Your task to perform on an android device: turn on the 12-hour format for clock Image 0: 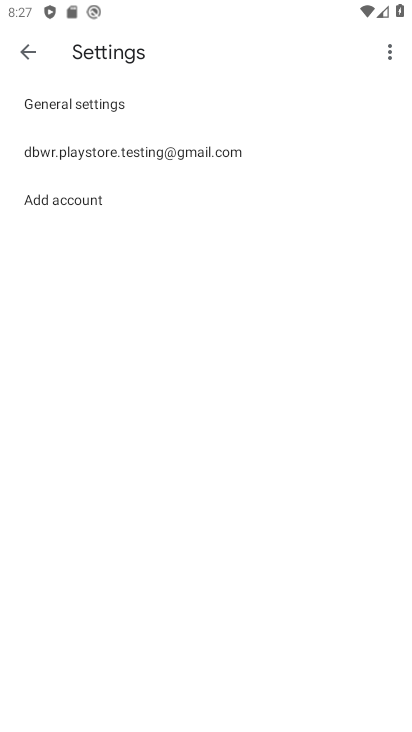
Step 0: press back button
Your task to perform on an android device: turn on the 12-hour format for clock Image 1: 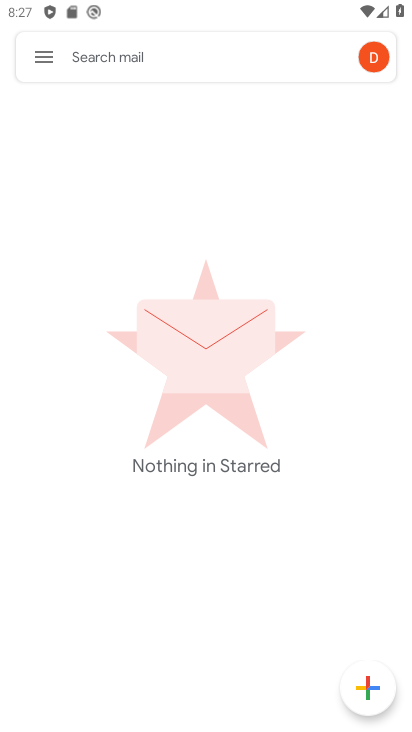
Step 1: press back button
Your task to perform on an android device: turn on the 12-hour format for clock Image 2: 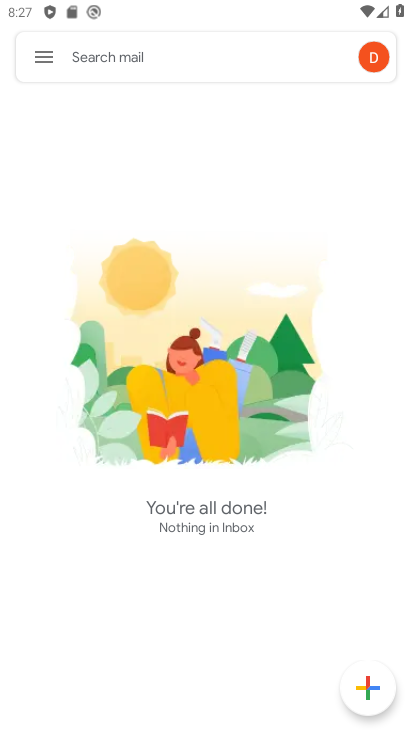
Step 2: press home button
Your task to perform on an android device: turn on the 12-hour format for clock Image 3: 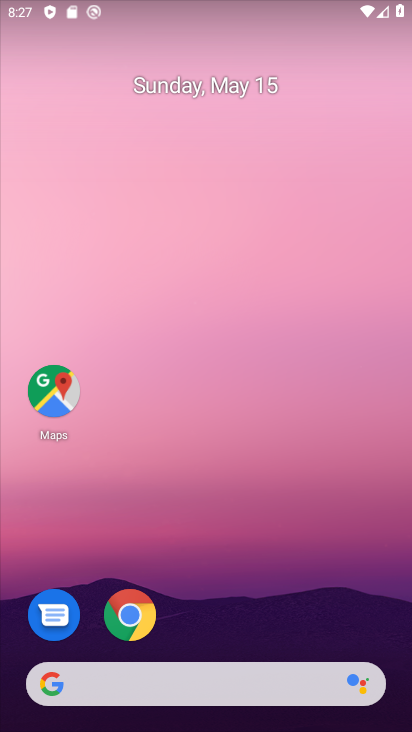
Step 3: drag from (270, 286) to (293, 3)
Your task to perform on an android device: turn on the 12-hour format for clock Image 4: 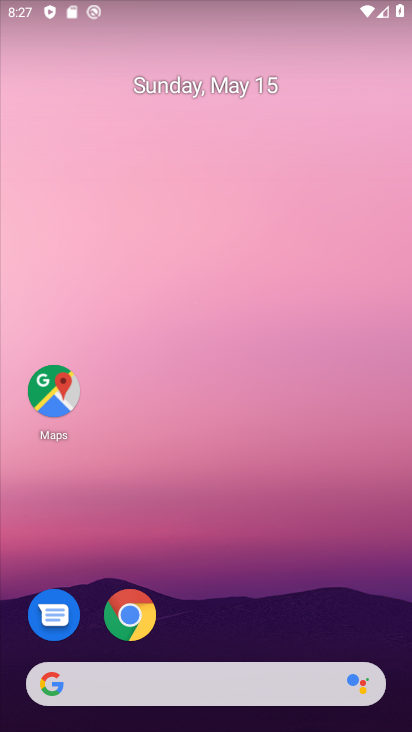
Step 4: drag from (304, 472) to (260, 9)
Your task to perform on an android device: turn on the 12-hour format for clock Image 5: 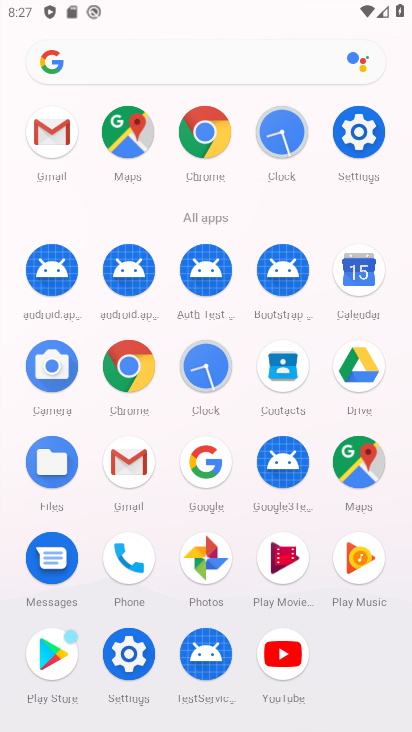
Step 5: drag from (6, 589) to (19, 356)
Your task to perform on an android device: turn on the 12-hour format for clock Image 6: 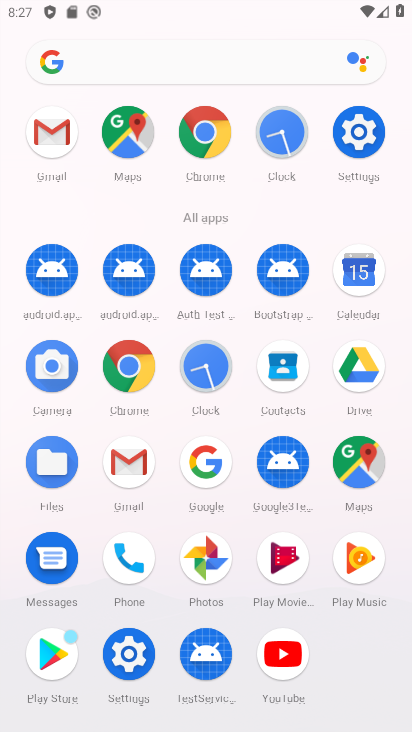
Step 6: click (204, 364)
Your task to perform on an android device: turn on the 12-hour format for clock Image 7: 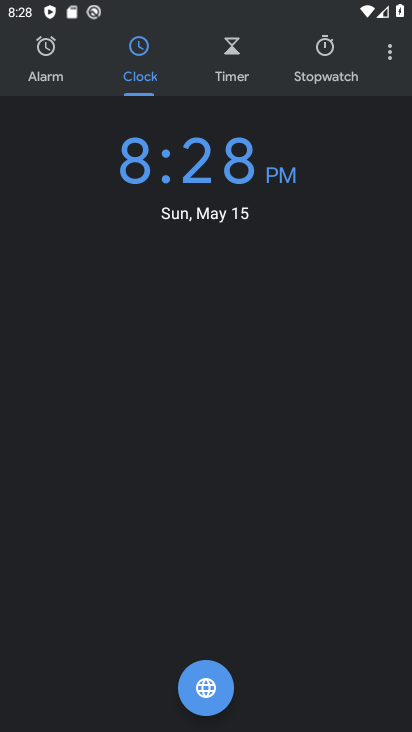
Step 7: drag from (393, 52) to (357, 108)
Your task to perform on an android device: turn on the 12-hour format for clock Image 8: 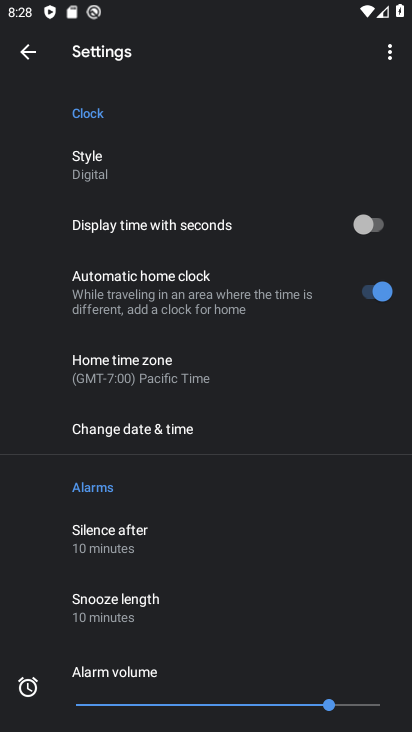
Step 8: click (191, 430)
Your task to perform on an android device: turn on the 12-hour format for clock Image 9: 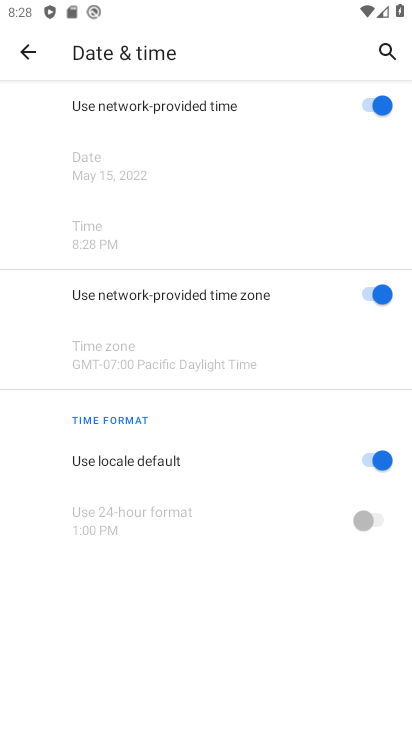
Step 9: task complete